Your task to perform on an android device: change text size in settings app Image 0: 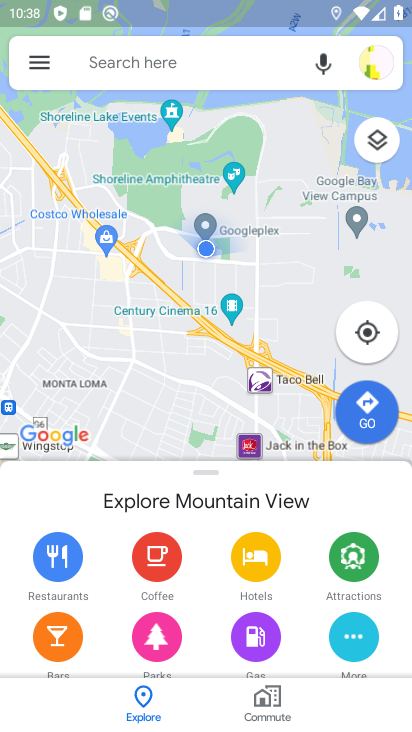
Step 0: press home button
Your task to perform on an android device: change text size in settings app Image 1: 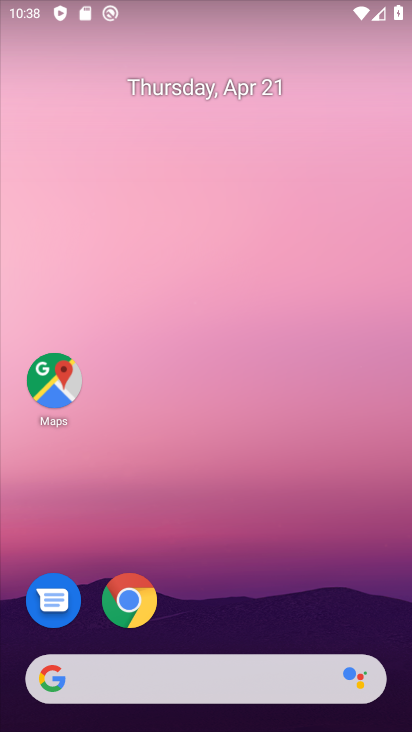
Step 1: drag from (310, 472) to (251, 106)
Your task to perform on an android device: change text size in settings app Image 2: 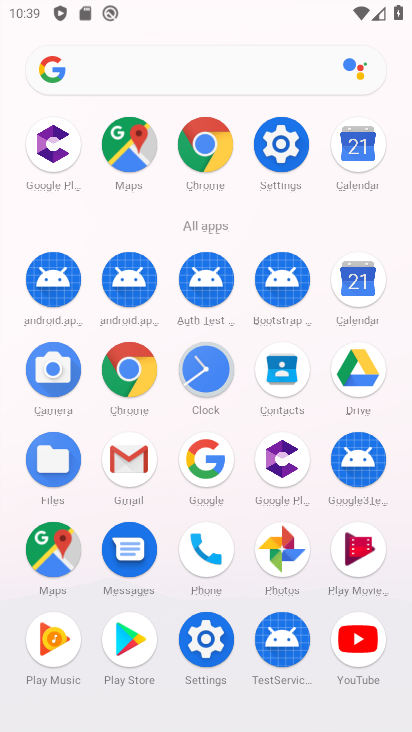
Step 2: click (293, 136)
Your task to perform on an android device: change text size in settings app Image 3: 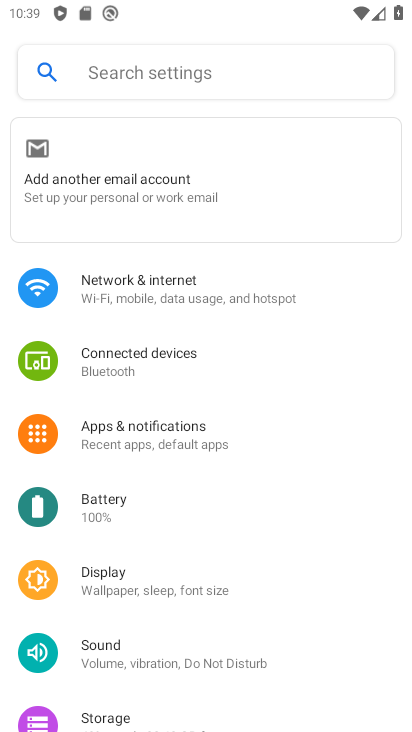
Step 3: click (195, 586)
Your task to perform on an android device: change text size in settings app Image 4: 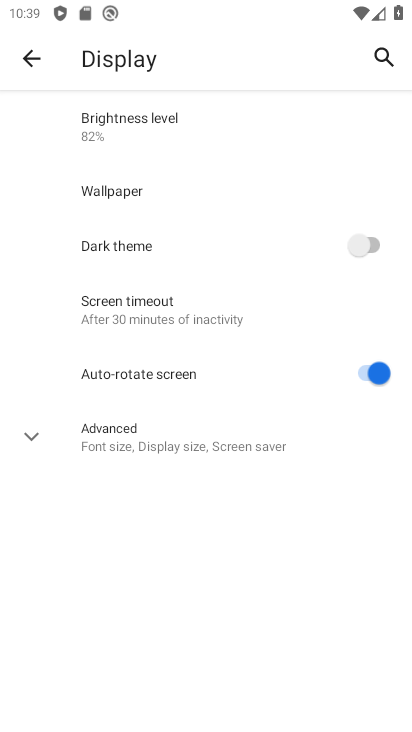
Step 4: click (168, 440)
Your task to perform on an android device: change text size in settings app Image 5: 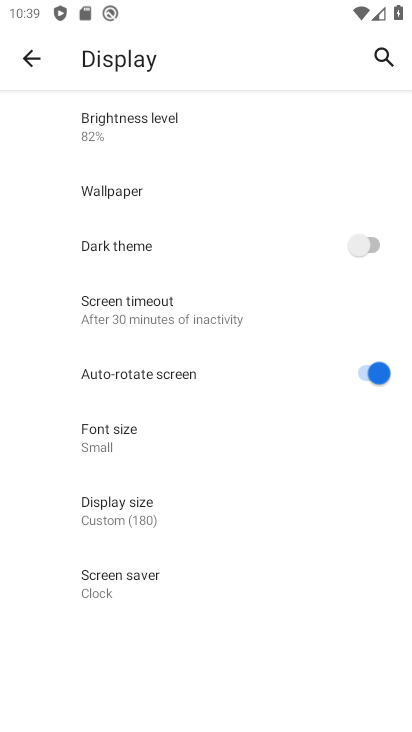
Step 5: click (114, 435)
Your task to perform on an android device: change text size in settings app Image 6: 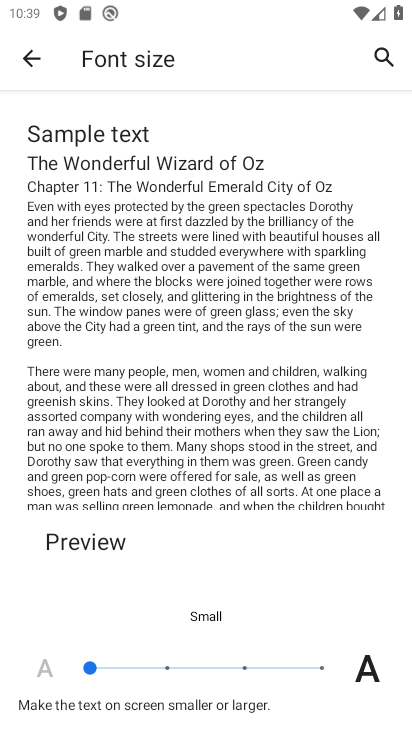
Step 6: click (136, 665)
Your task to perform on an android device: change text size in settings app Image 7: 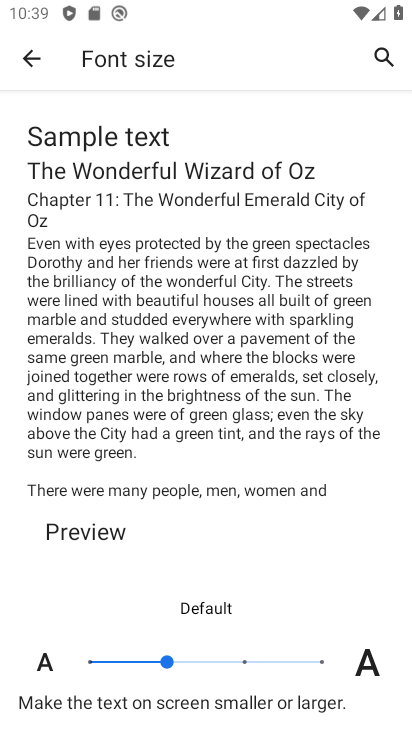
Step 7: task complete